Your task to perform on an android device: Go to network settings Image 0: 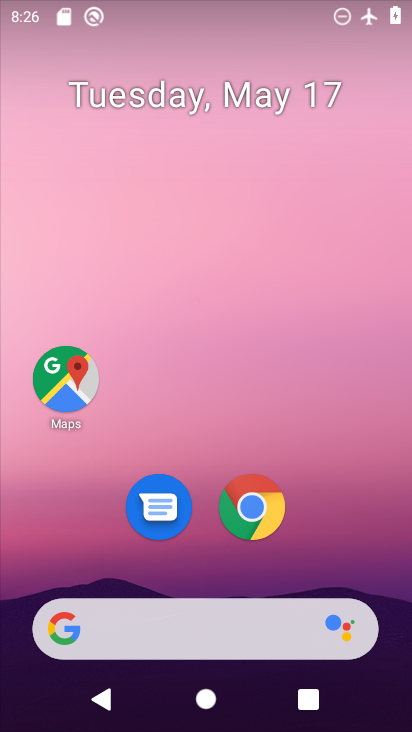
Step 0: drag from (337, 567) to (319, 2)
Your task to perform on an android device: Go to network settings Image 1: 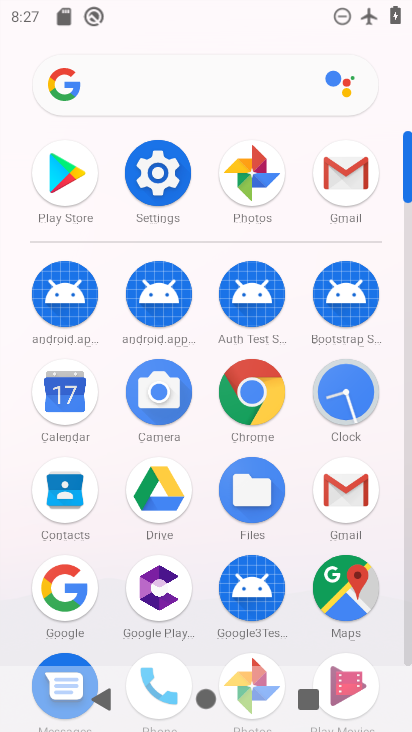
Step 1: click (149, 178)
Your task to perform on an android device: Go to network settings Image 2: 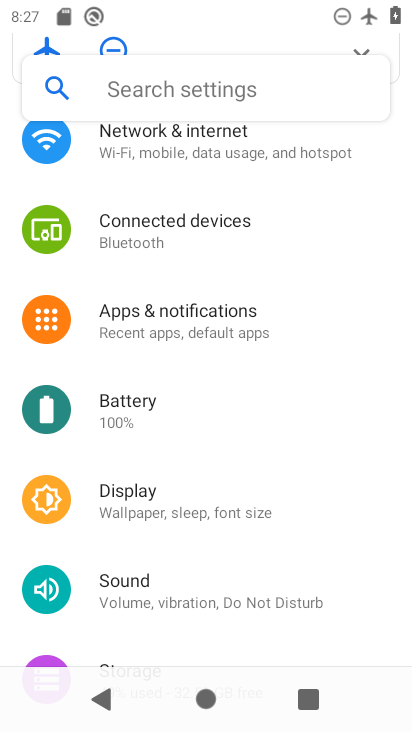
Step 2: click (135, 154)
Your task to perform on an android device: Go to network settings Image 3: 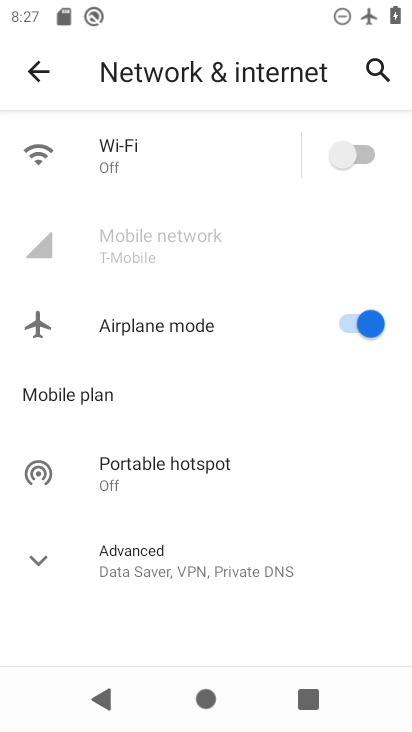
Step 3: task complete